Your task to perform on an android device: open app "DoorDash - Food Delivery" Image 0: 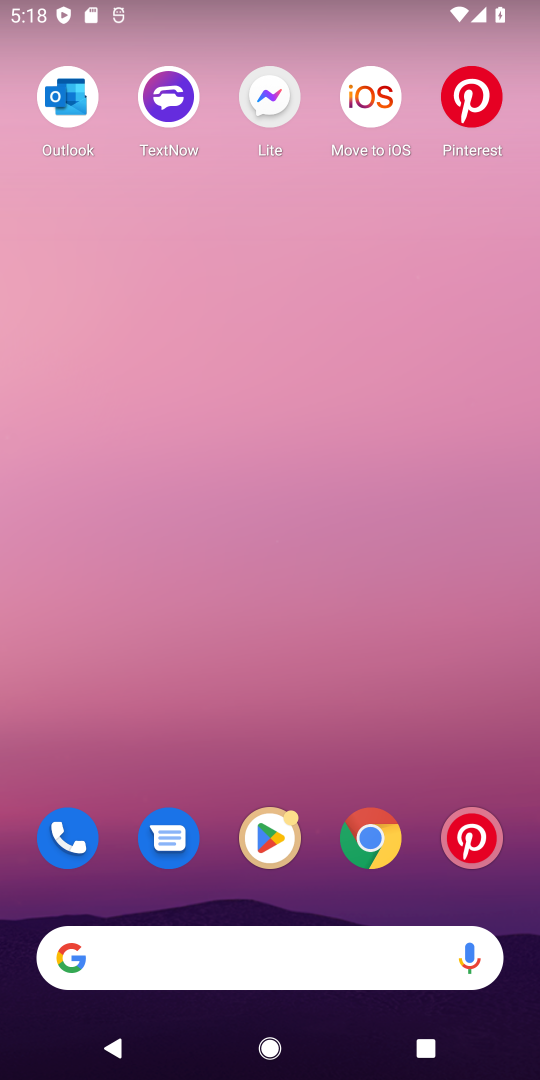
Step 0: click (264, 842)
Your task to perform on an android device: open app "DoorDash - Food Delivery" Image 1: 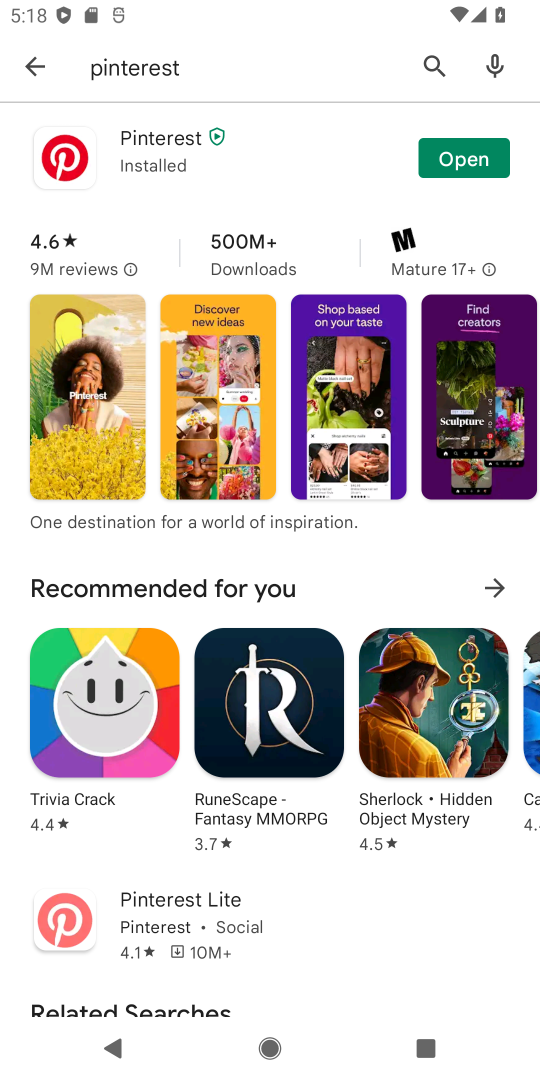
Step 1: click (432, 66)
Your task to perform on an android device: open app "DoorDash - Food Delivery" Image 2: 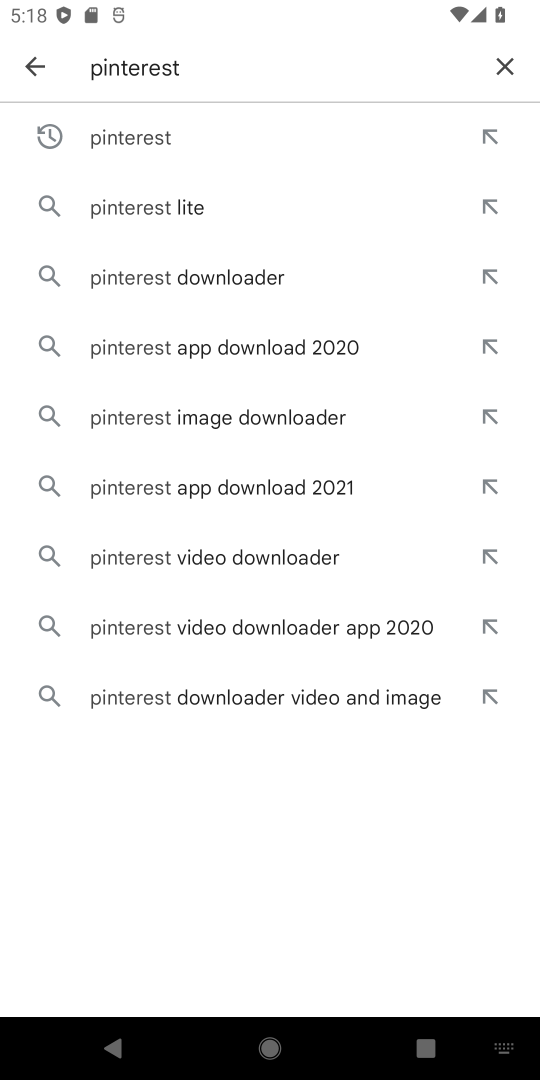
Step 2: click (507, 60)
Your task to perform on an android device: open app "DoorDash - Food Delivery" Image 3: 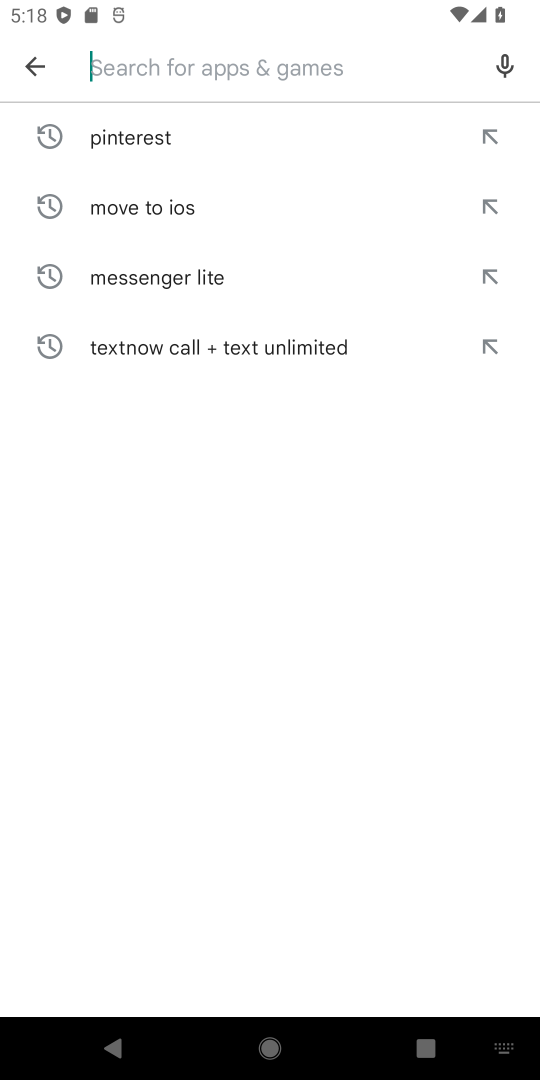
Step 3: type "DoorDash - Food Delivery"
Your task to perform on an android device: open app "DoorDash - Food Delivery" Image 4: 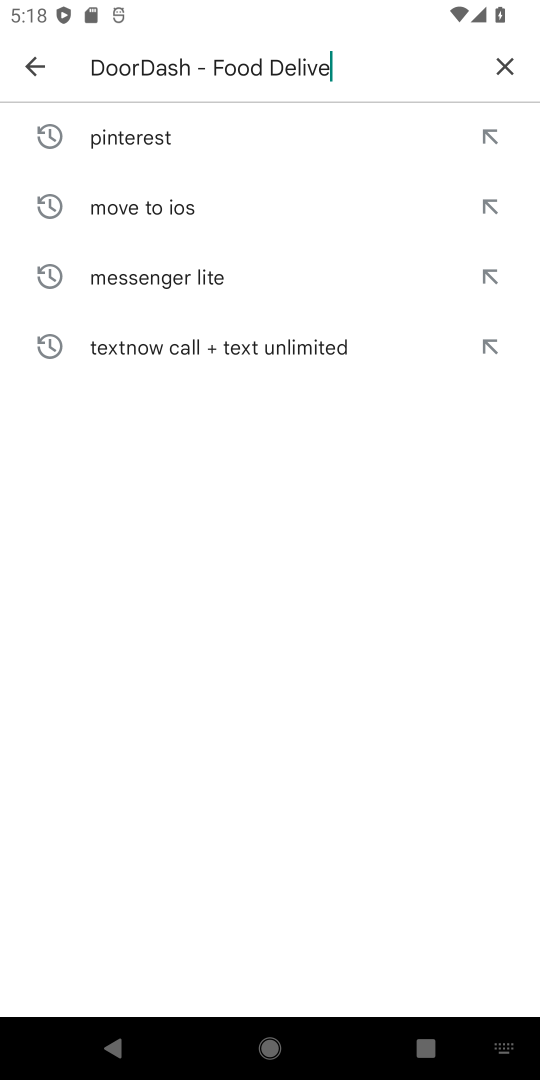
Step 4: type ""
Your task to perform on an android device: open app "DoorDash - Food Delivery" Image 5: 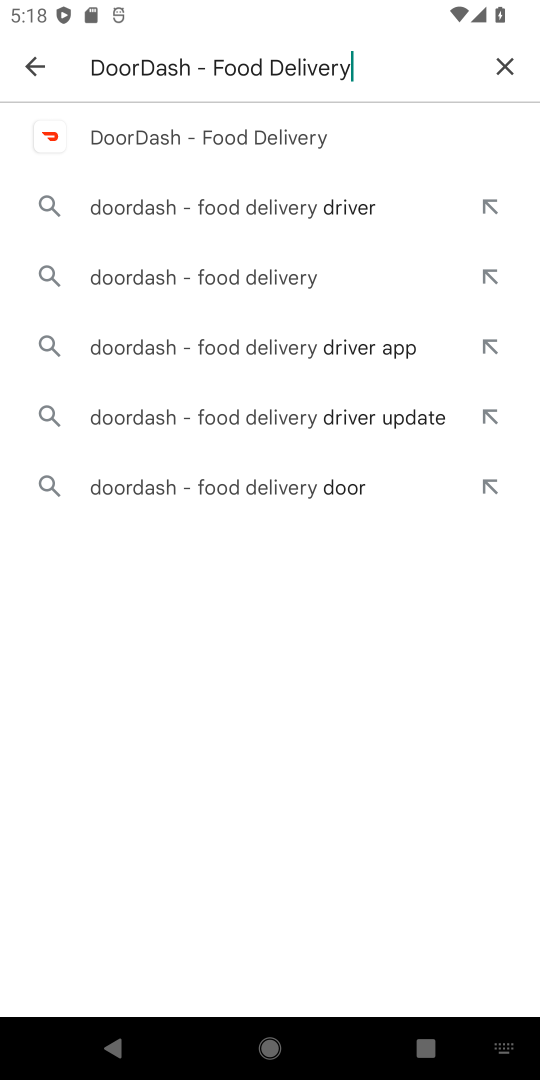
Step 5: click (140, 136)
Your task to perform on an android device: open app "DoorDash - Food Delivery" Image 6: 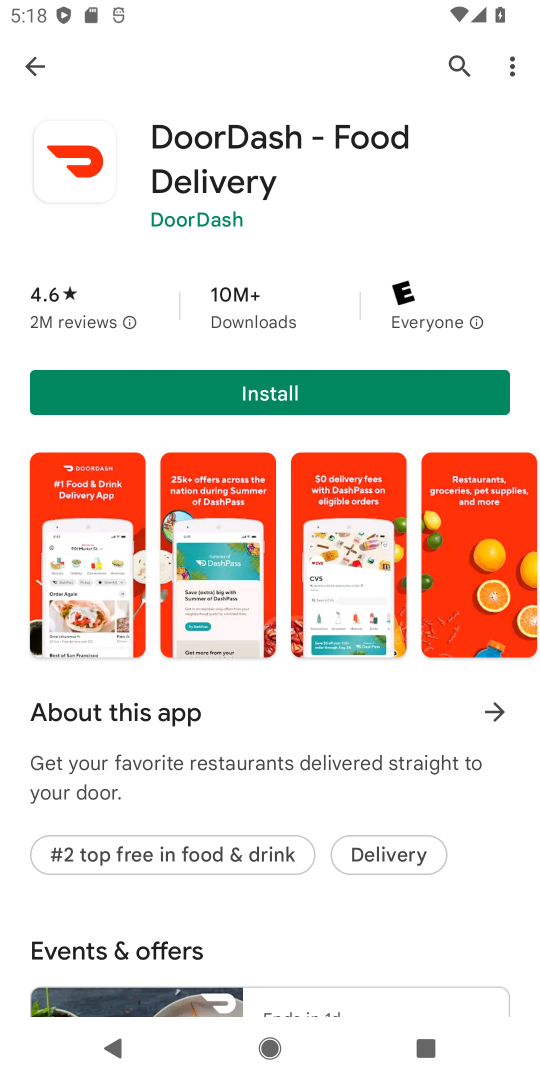
Step 6: task complete